Your task to perform on an android device: turn off location history Image 0: 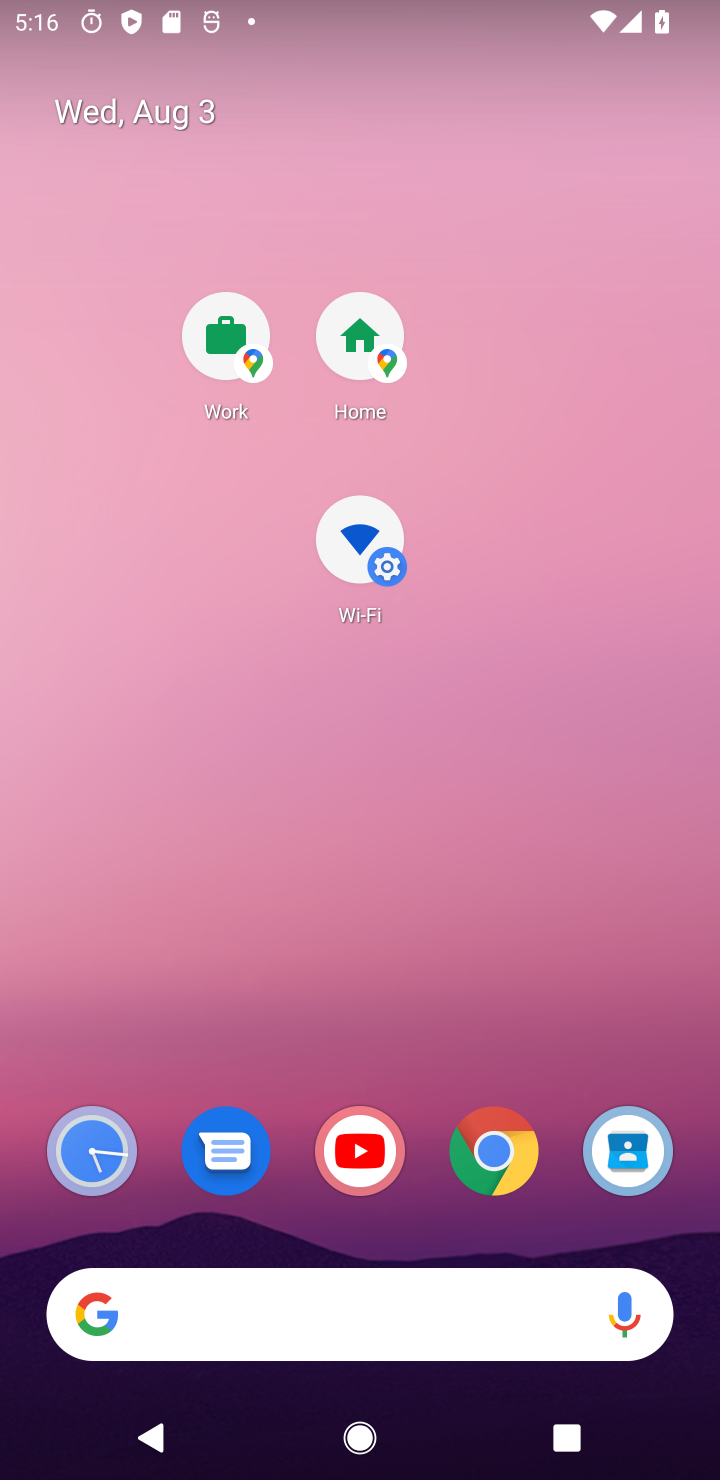
Step 0: drag from (425, 1403) to (264, 795)
Your task to perform on an android device: turn off location history Image 1: 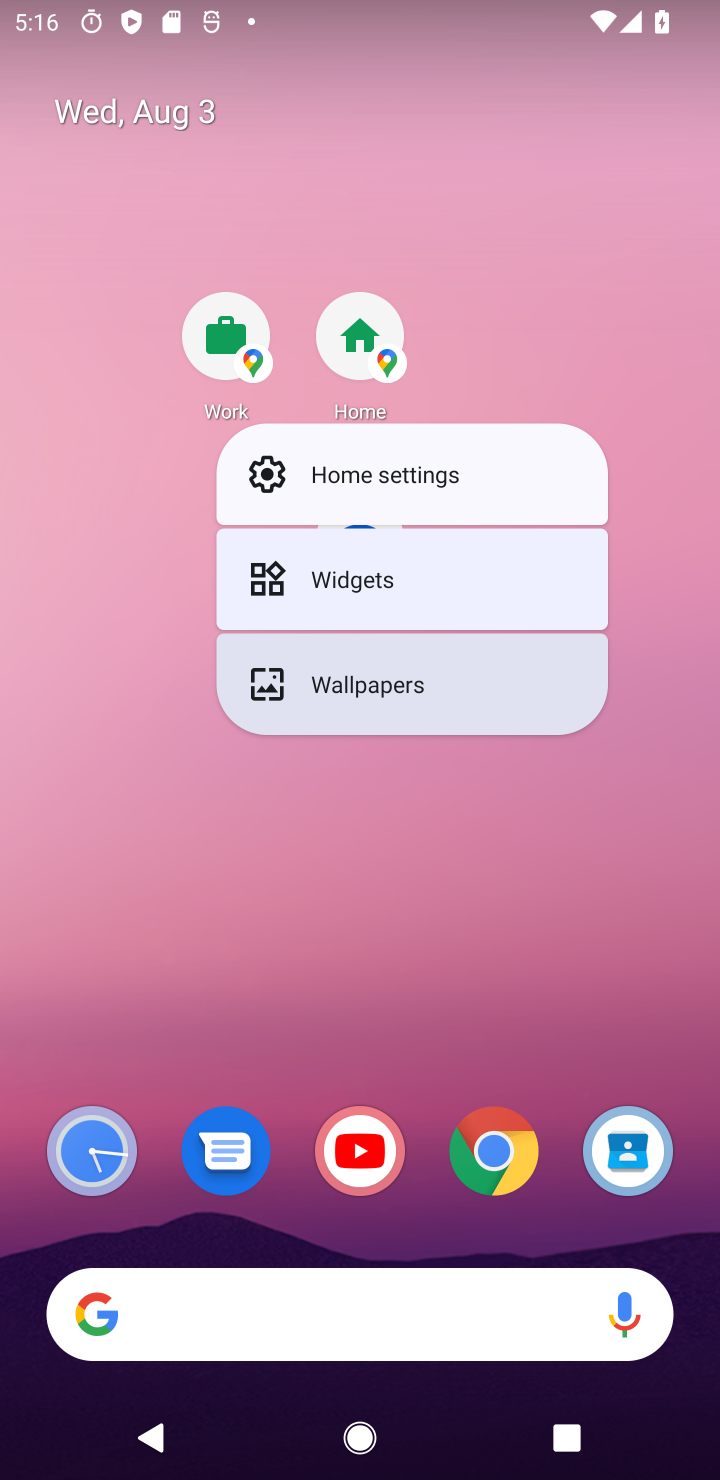
Step 1: click (173, 699)
Your task to perform on an android device: turn off location history Image 2: 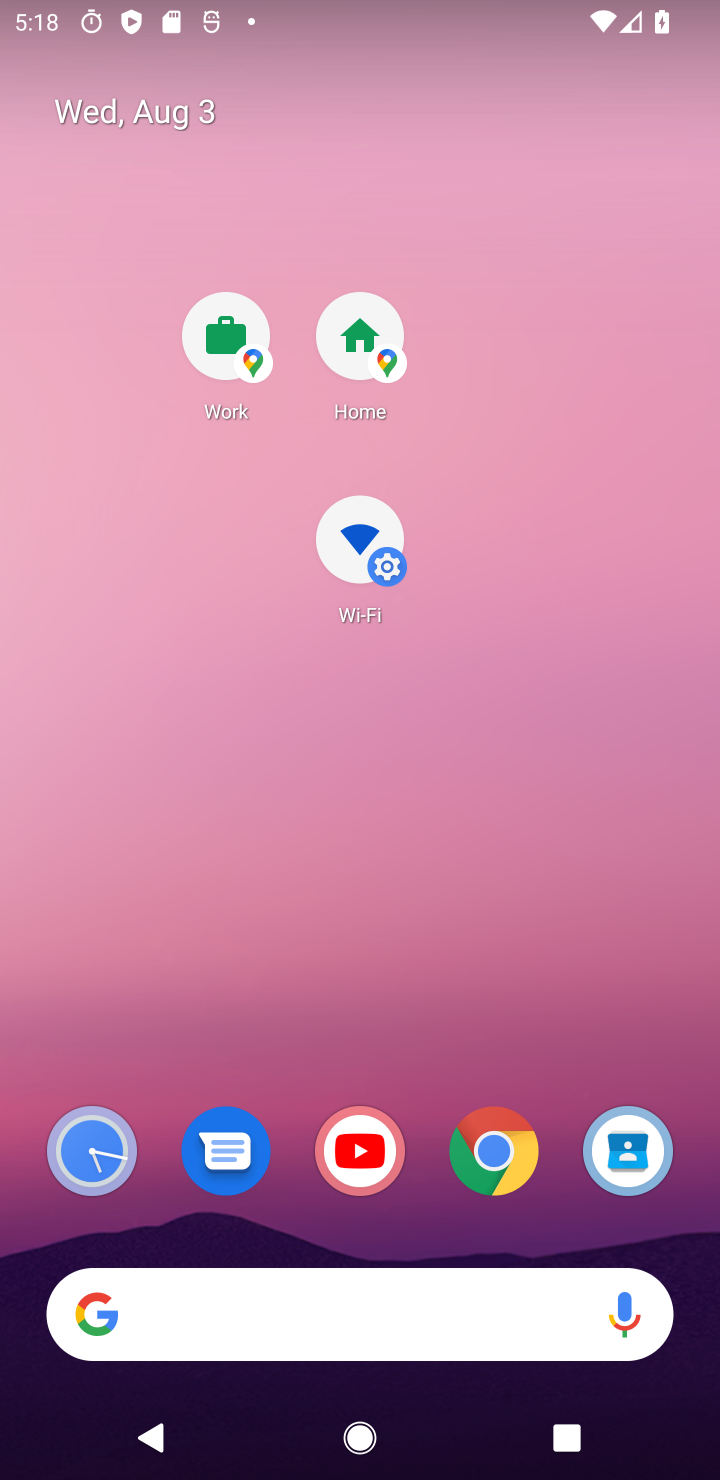
Step 2: drag from (418, 1336) to (205, 432)
Your task to perform on an android device: turn off location history Image 3: 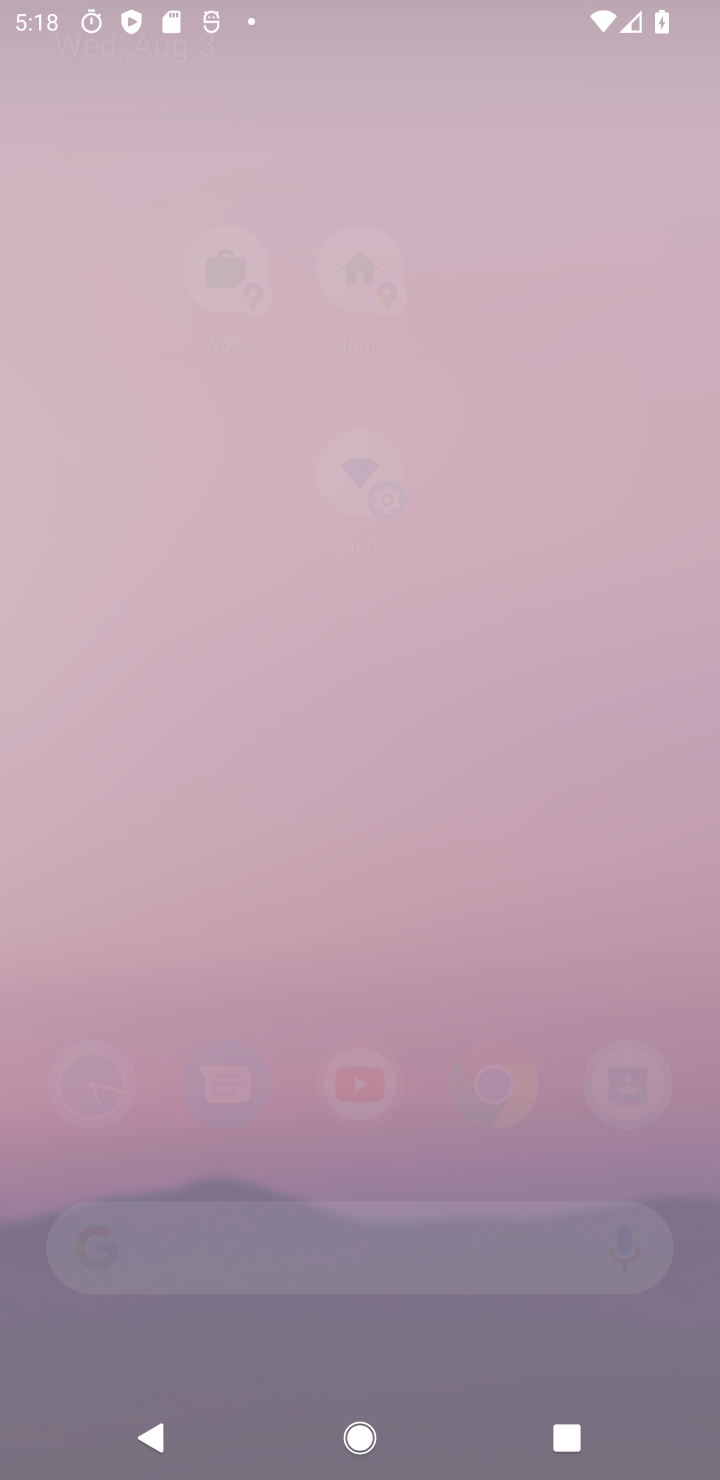
Step 3: drag from (470, 1019) to (387, 609)
Your task to perform on an android device: turn off location history Image 4: 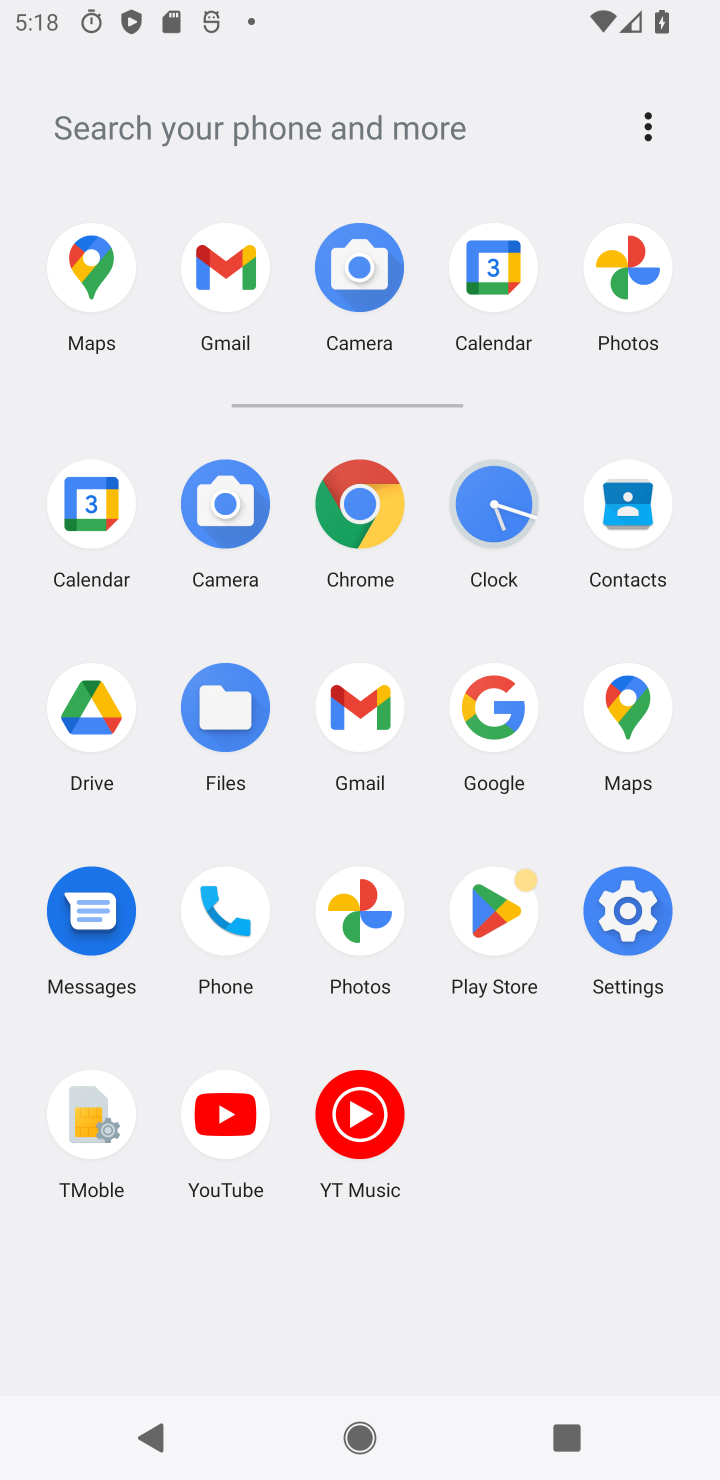
Step 4: drag from (483, 966) to (407, 349)
Your task to perform on an android device: turn off location history Image 5: 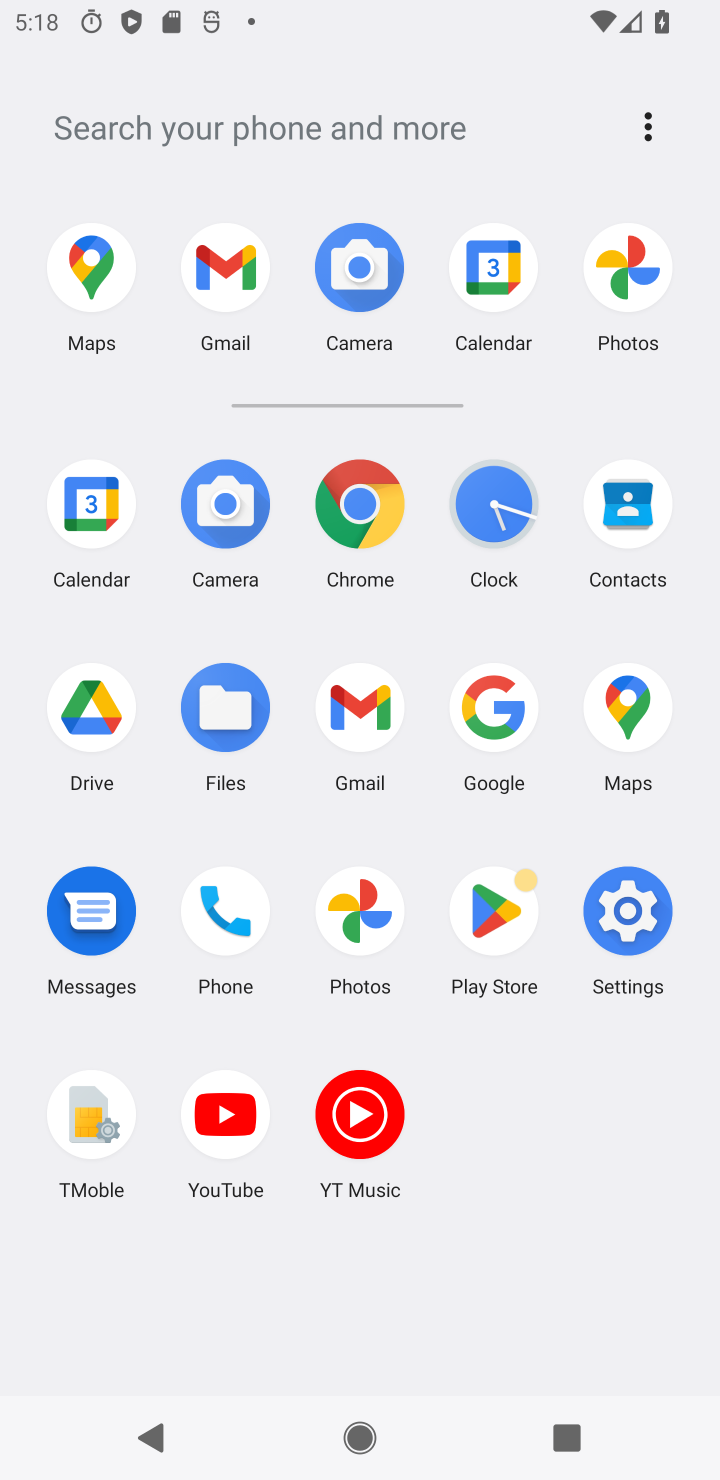
Step 5: click (624, 898)
Your task to perform on an android device: turn off location history Image 6: 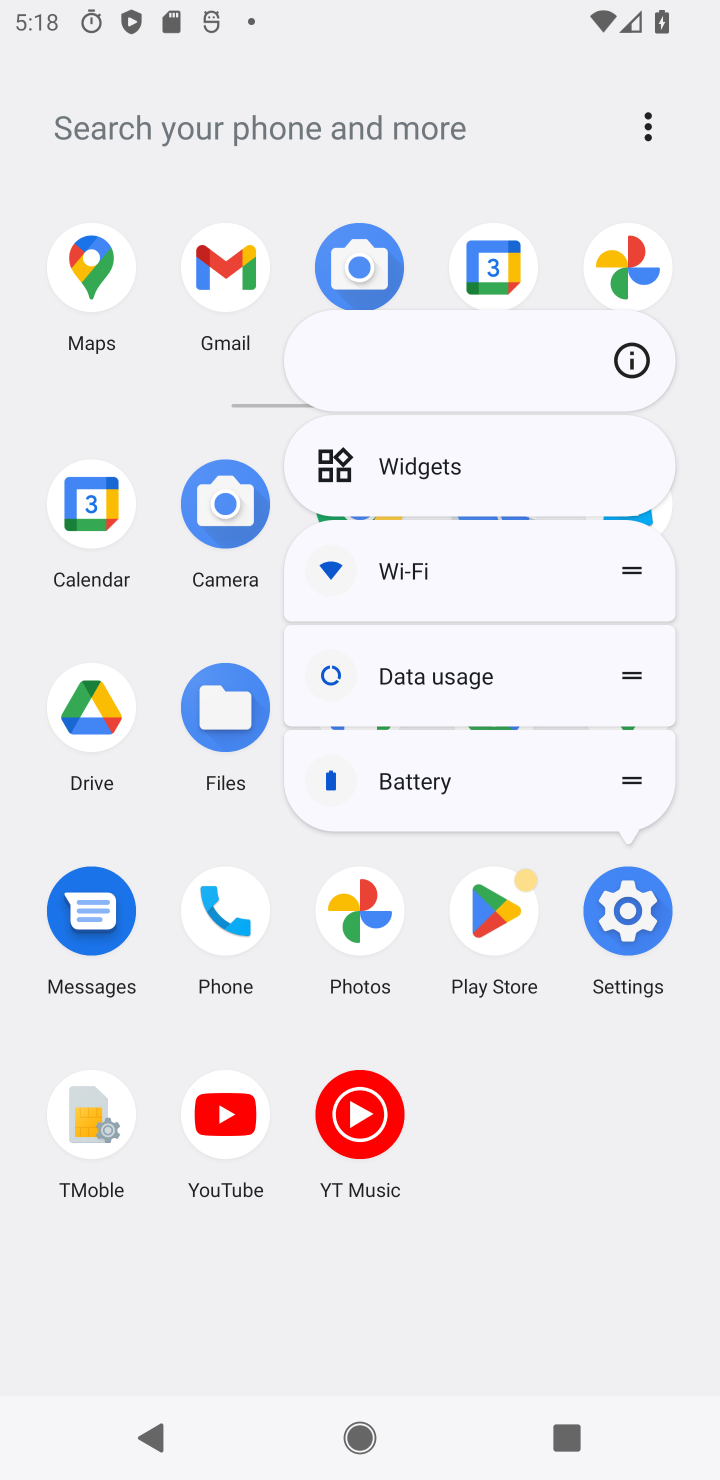
Step 6: click (624, 899)
Your task to perform on an android device: turn off location history Image 7: 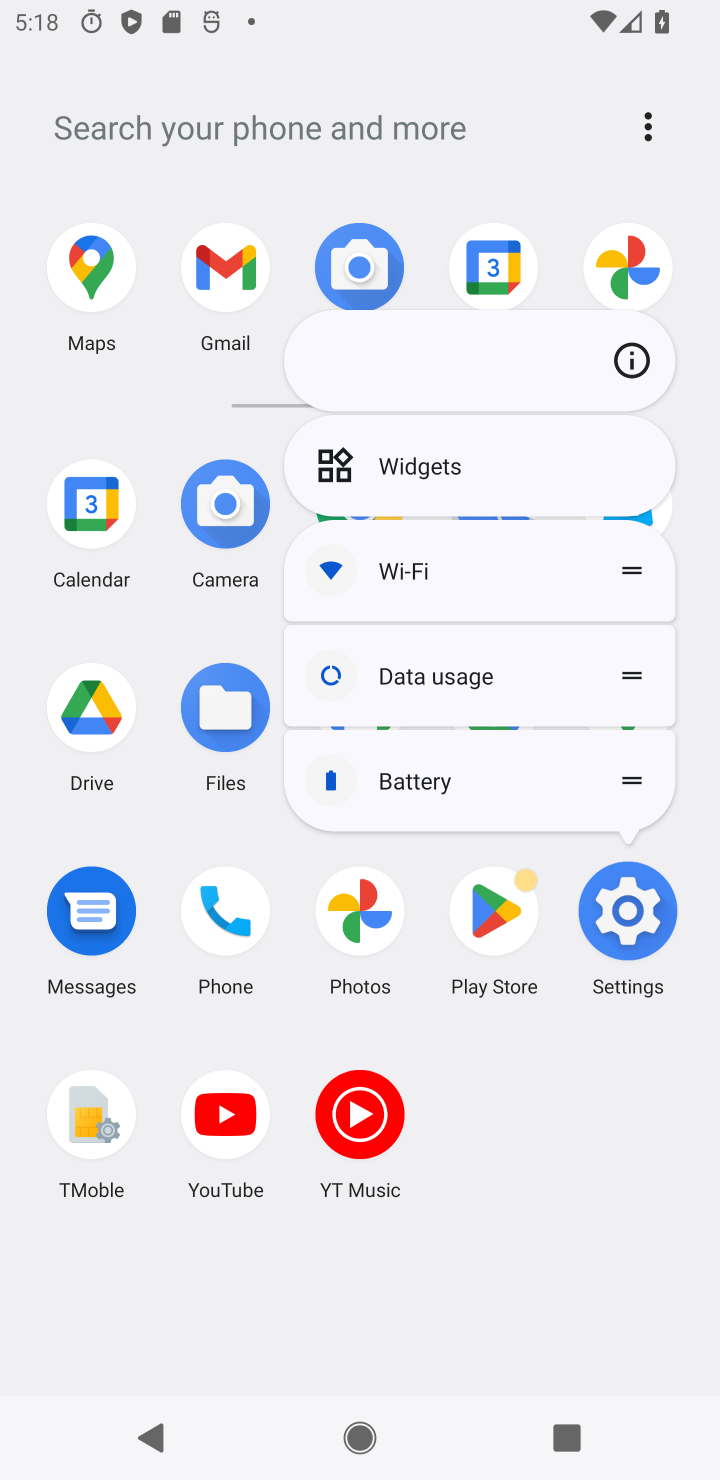
Step 7: click (624, 899)
Your task to perform on an android device: turn off location history Image 8: 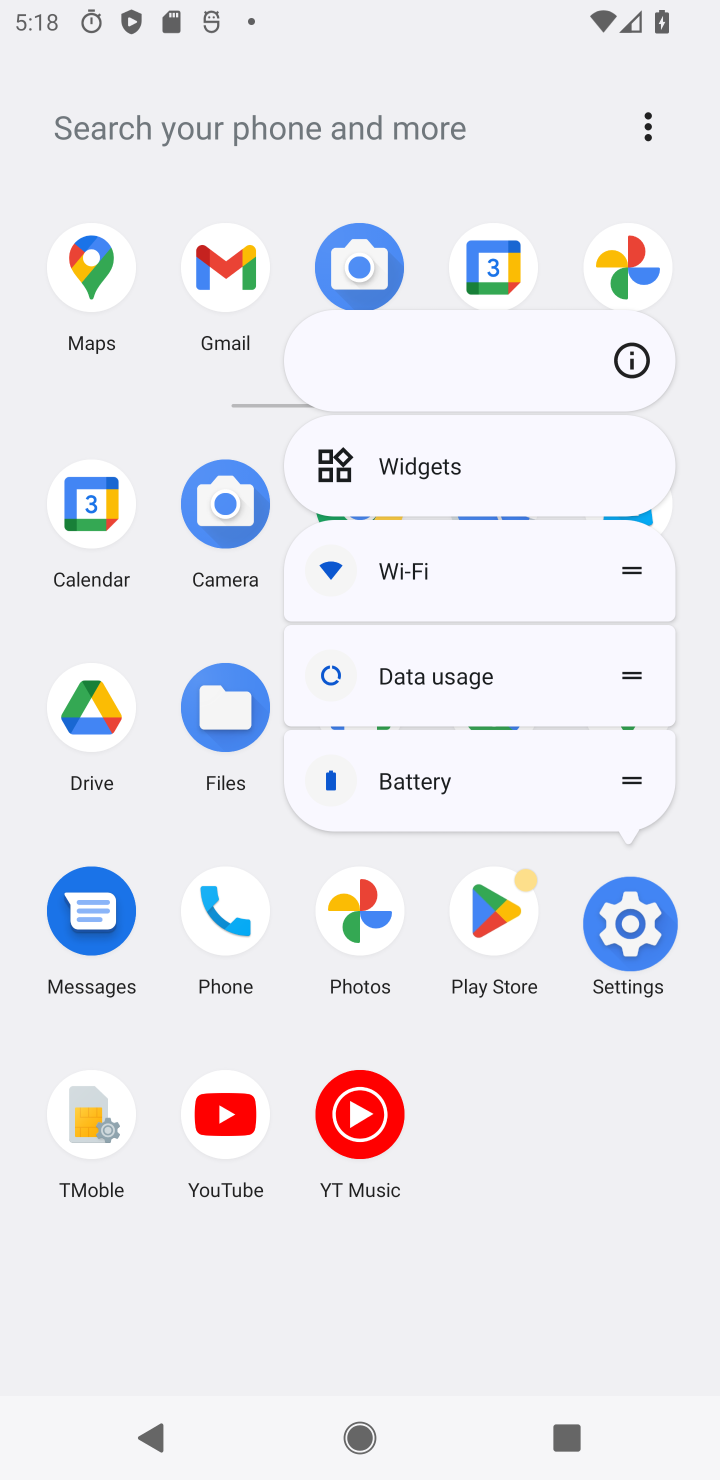
Step 8: click (643, 944)
Your task to perform on an android device: turn off location history Image 9: 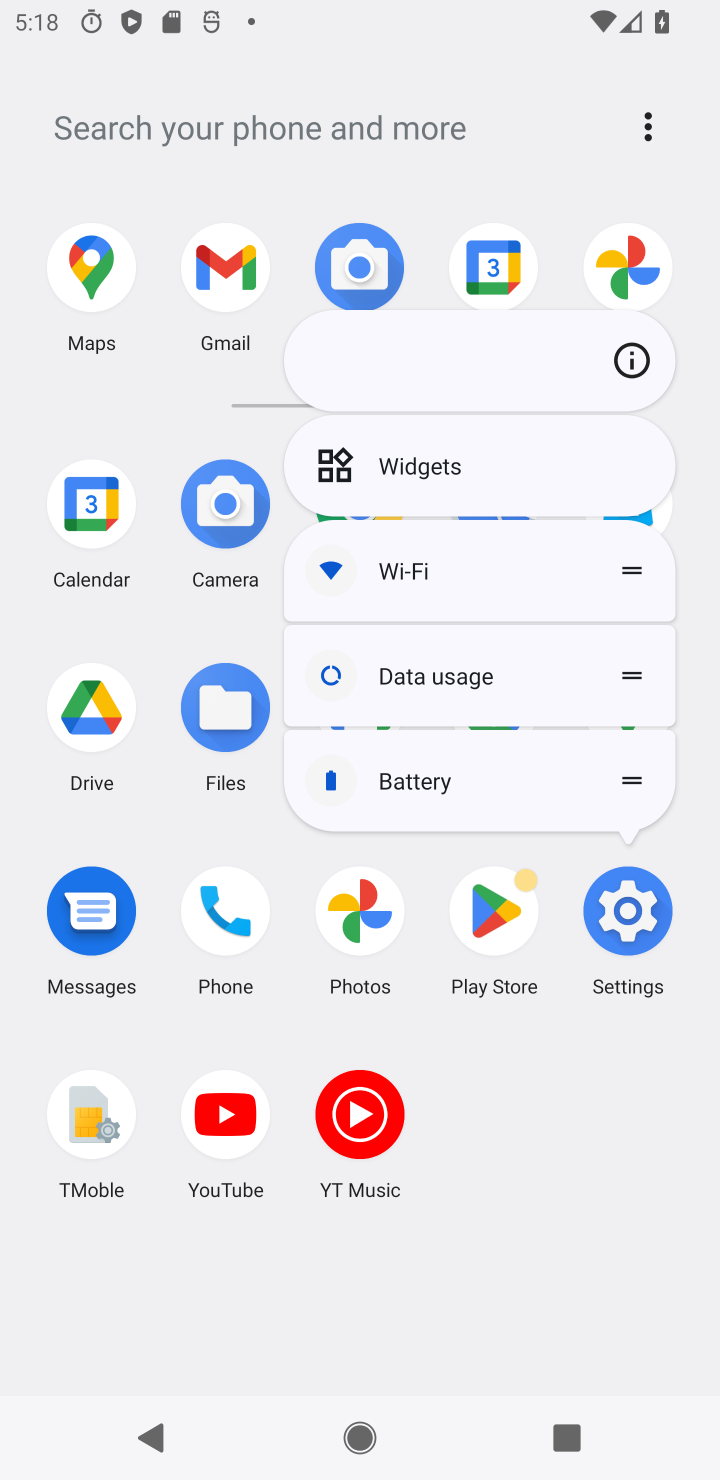
Step 9: click (643, 944)
Your task to perform on an android device: turn off location history Image 10: 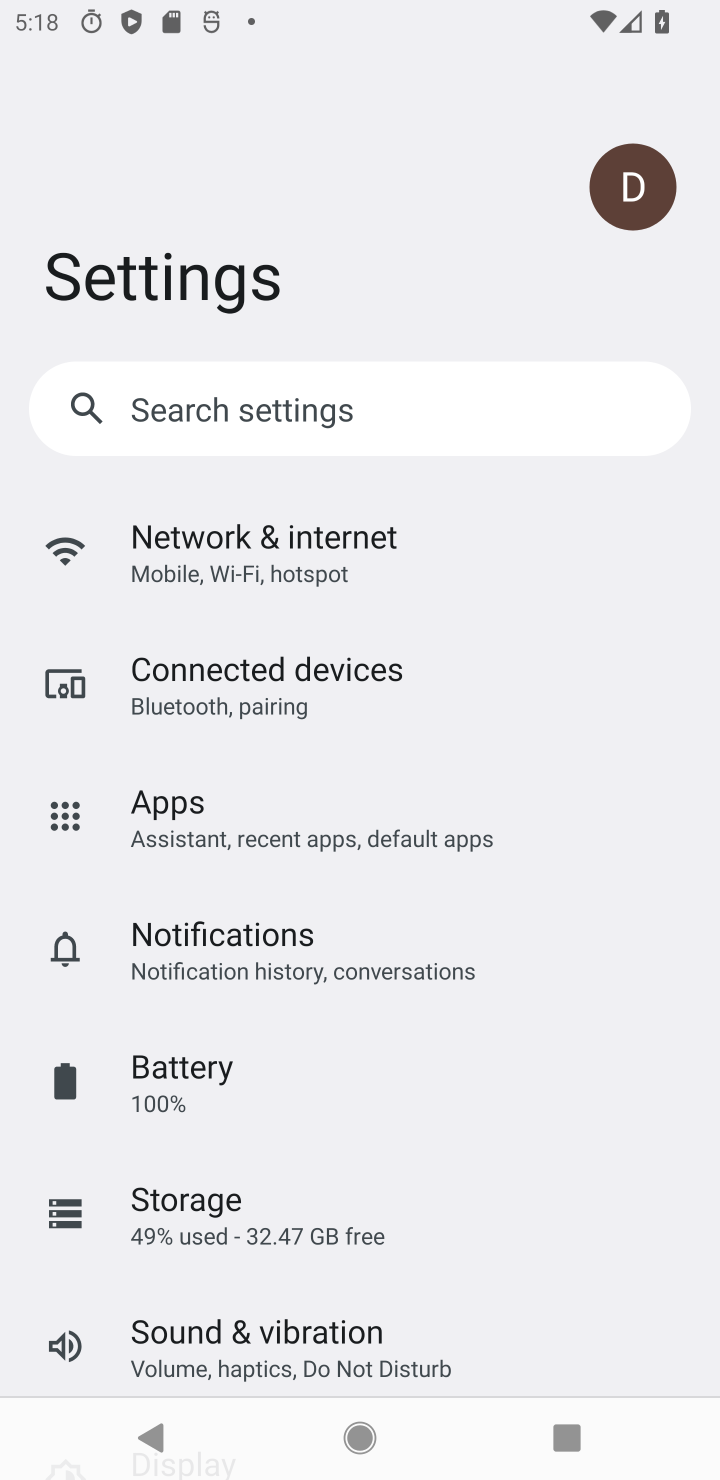
Step 10: drag from (334, 1259) to (393, 370)
Your task to perform on an android device: turn off location history Image 11: 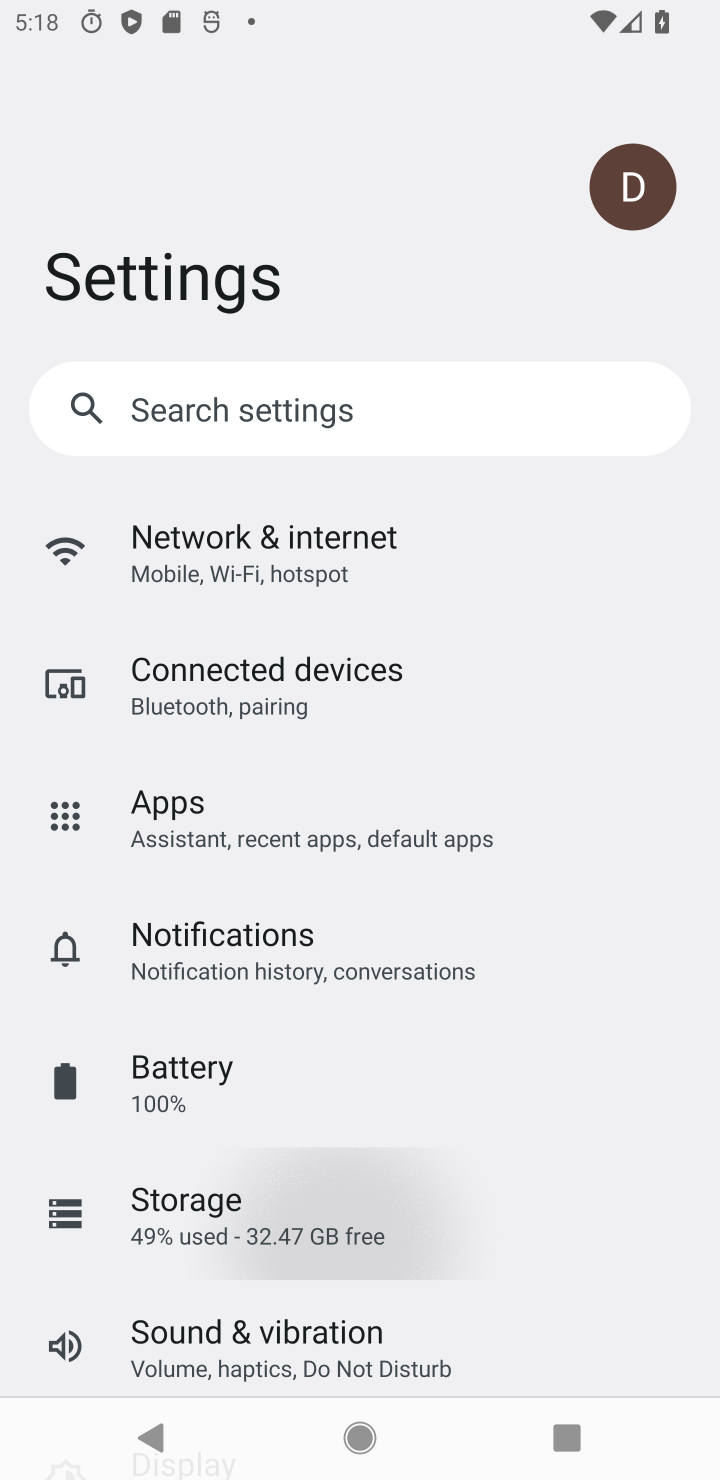
Step 11: click (349, 835)
Your task to perform on an android device: turn off location history Image 12: 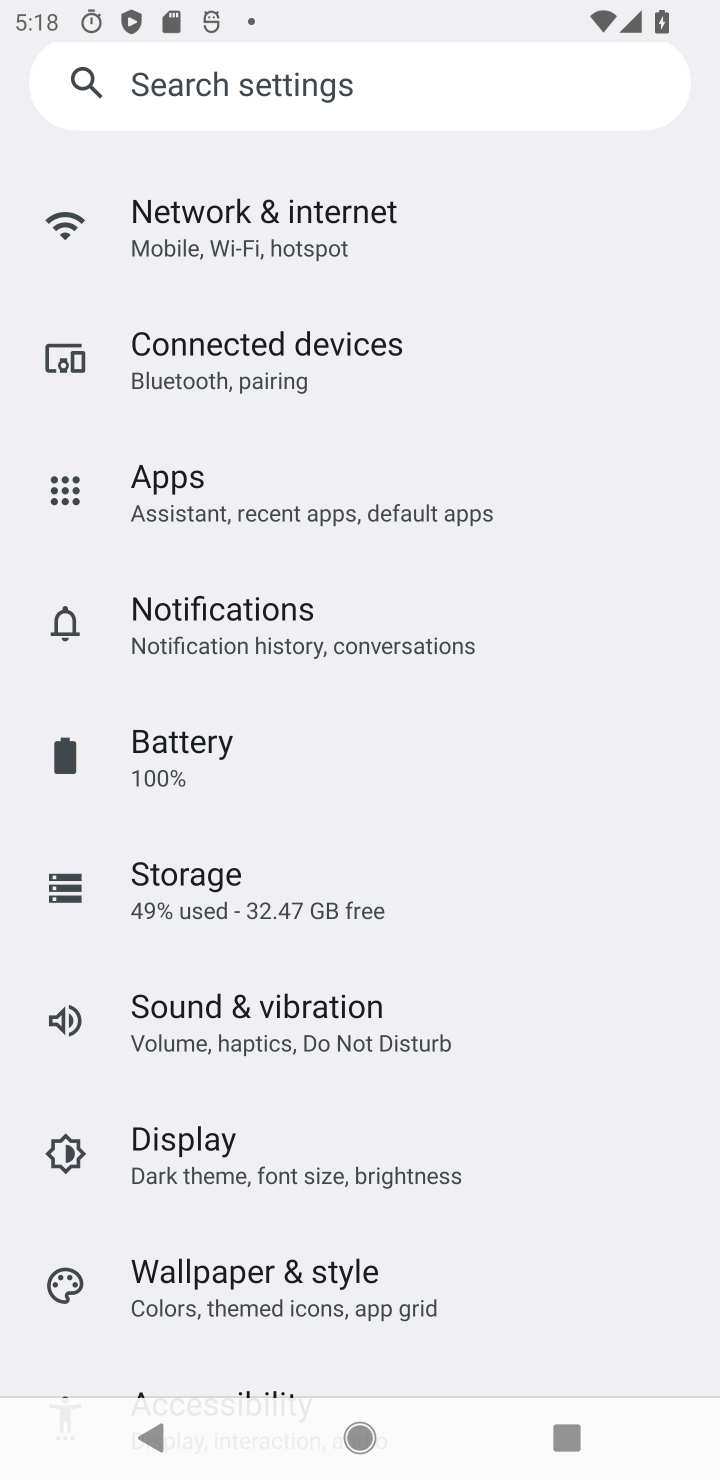
Step 12: drag from (285, 1152) to (143, 134)
Your task to perform on an android device: turn off location history Image 13: 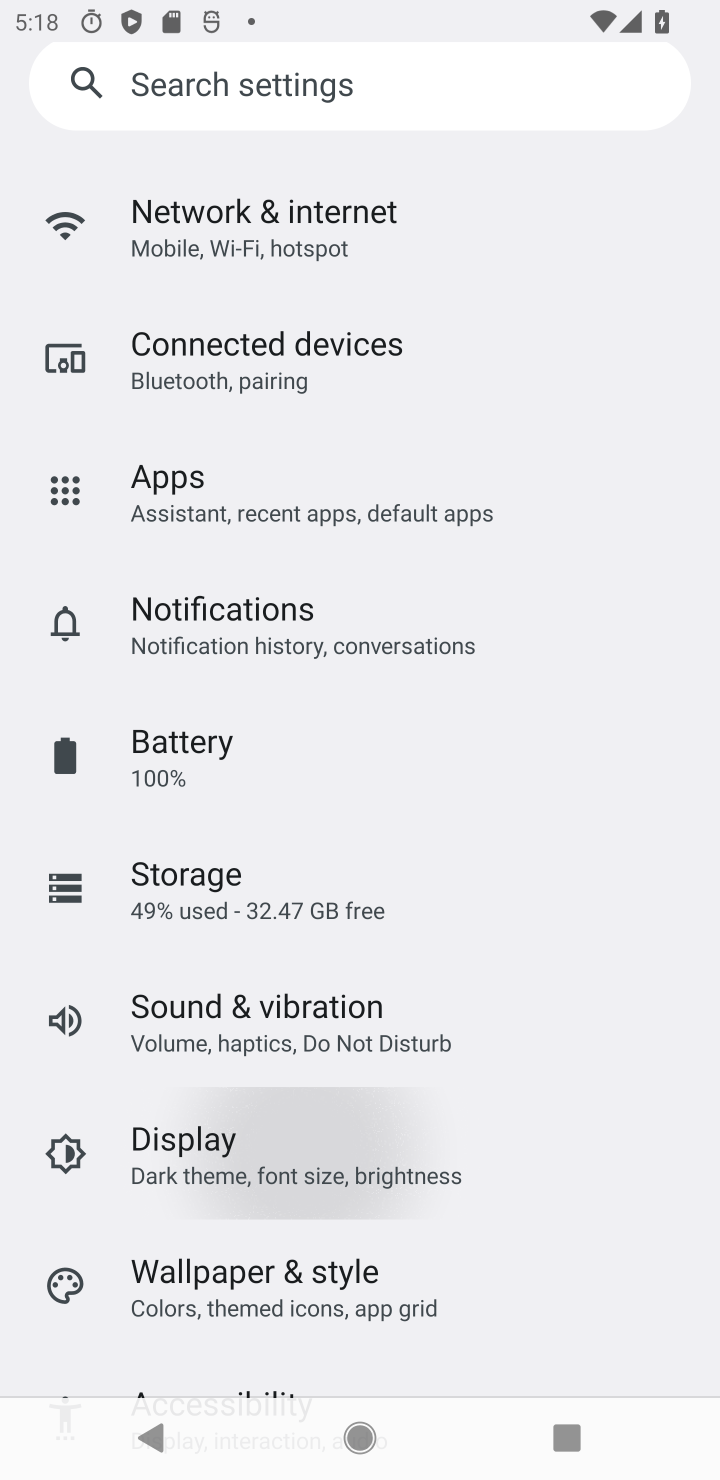
Step 13: drag from (306, 773) to (287, 574)
Your task to perform on an android device: turn off location history Image 14: 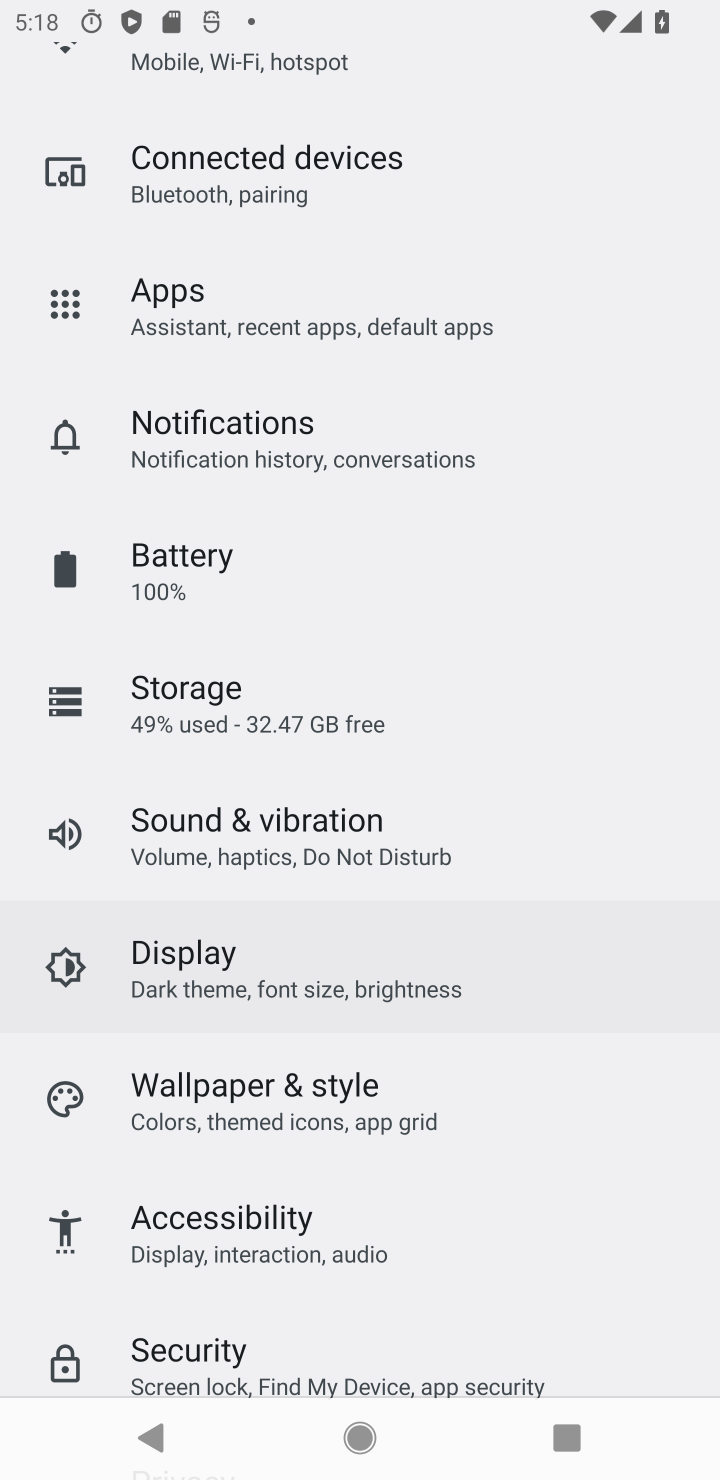
Step 14: drag from (355, 1079) to (337, 839)
Your task to perform on an android device: turn off location history Image 15: 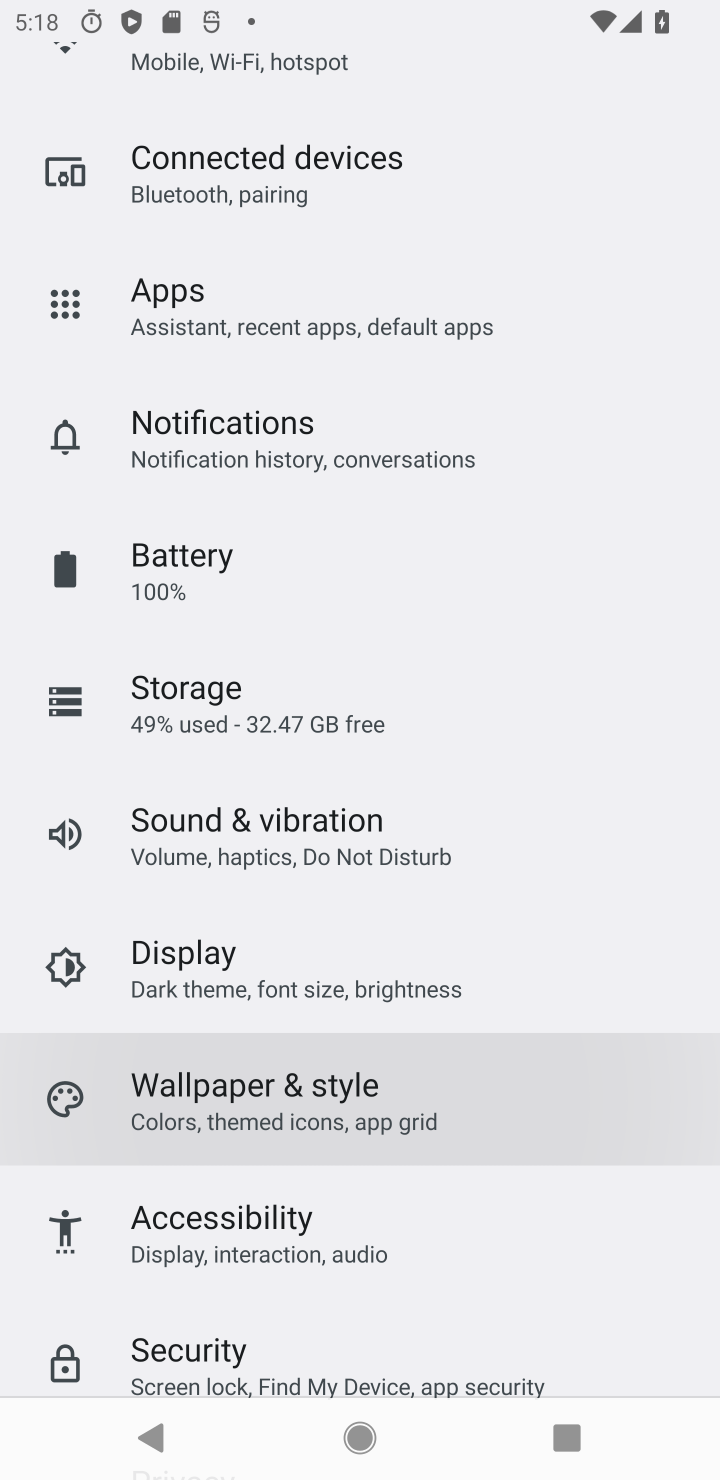
Step 15: drag from (364, 1078) to (253, 520)
Your task to perform on an android device: turn off location history Image 16: 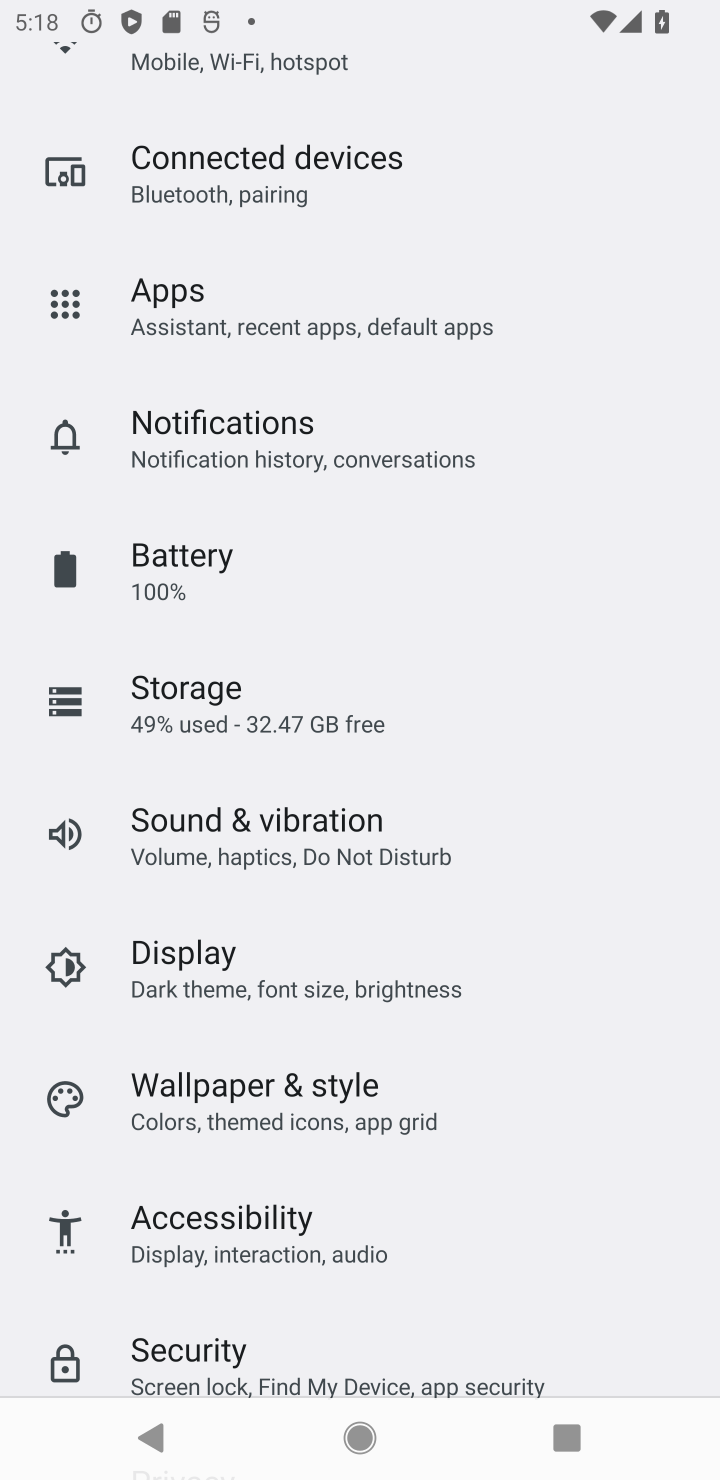
Step 16: drag from (329, 1125) to (235, 405)
Your task to perform on an android device: turn off location history Image 17: 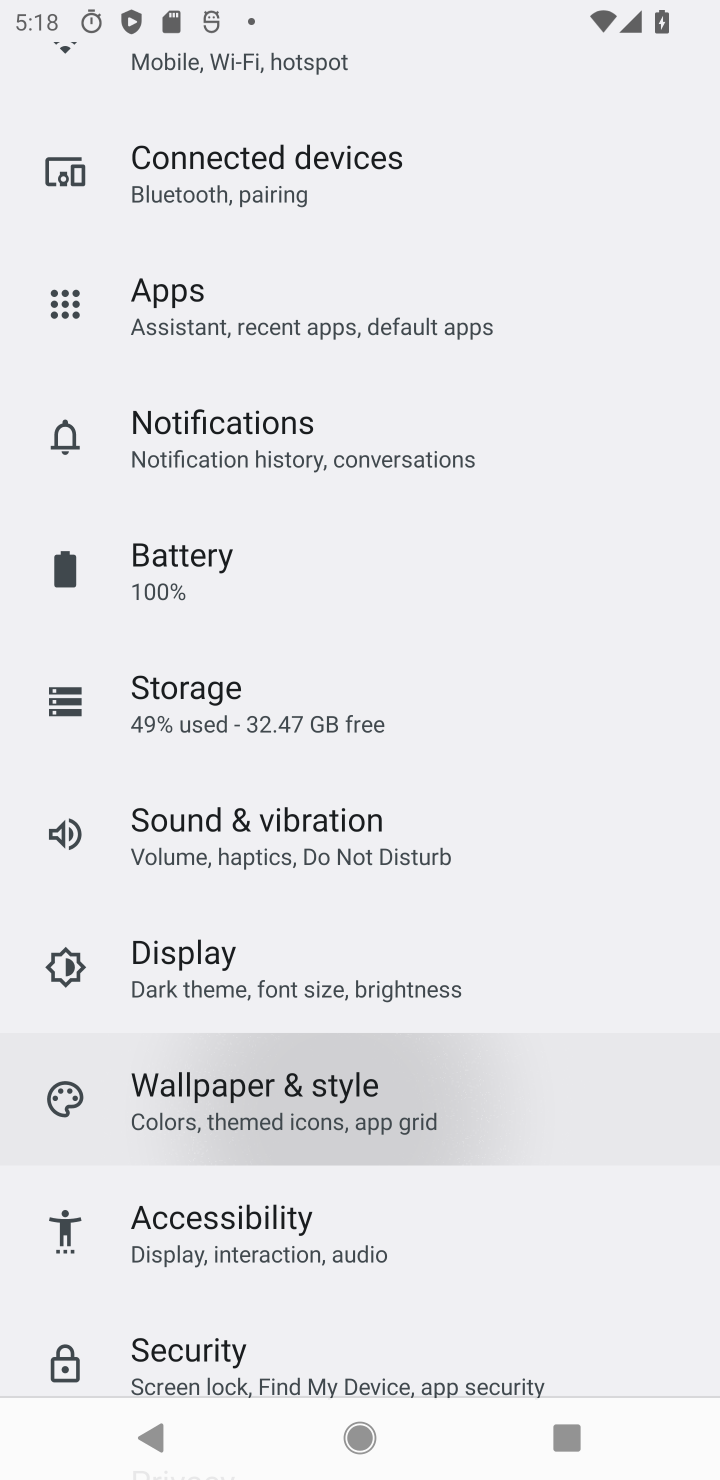
Step 17: drag from (378, 969) to (294, 638)
Your task to perform on an android device: turn off location history Image 18: 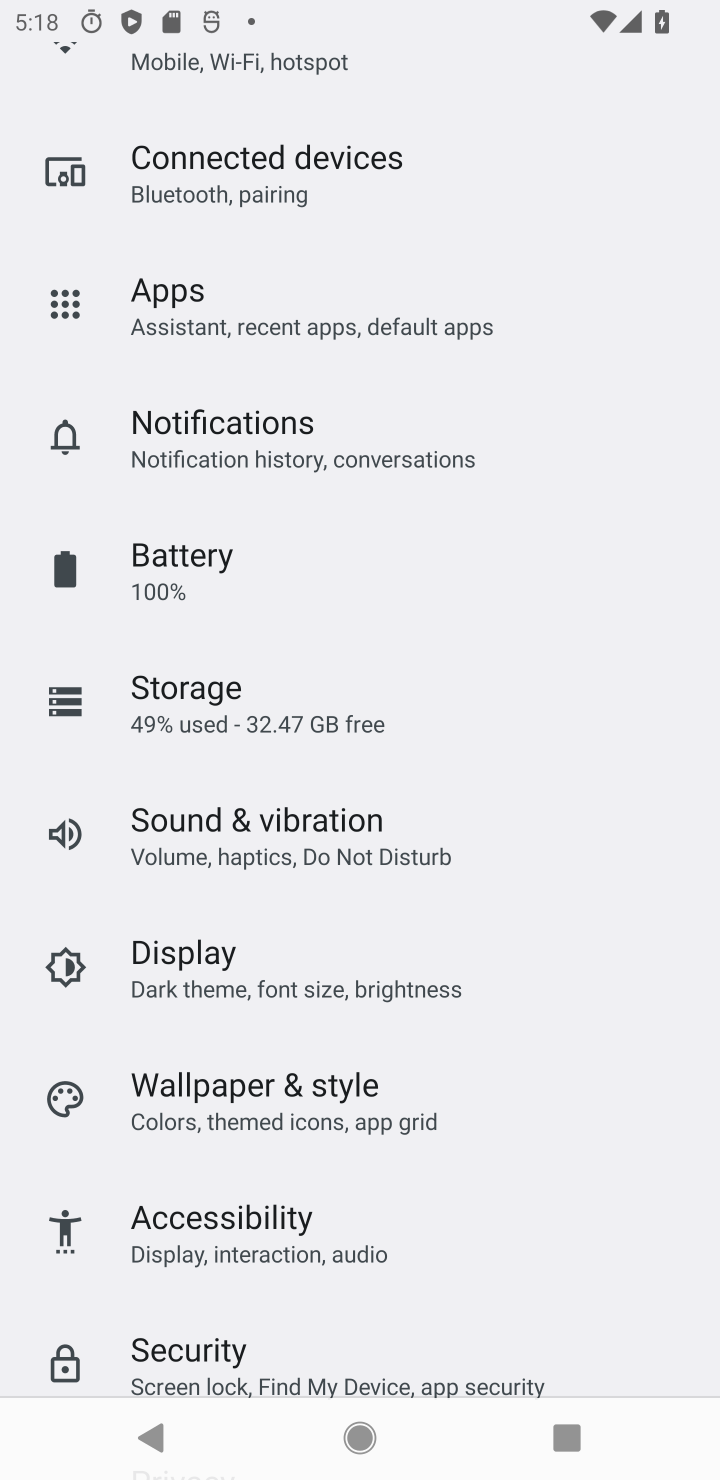
Step 18: drag from (300, 1192) to (321, 585)
Your task to perform on an android device: turn off location history Image 19: 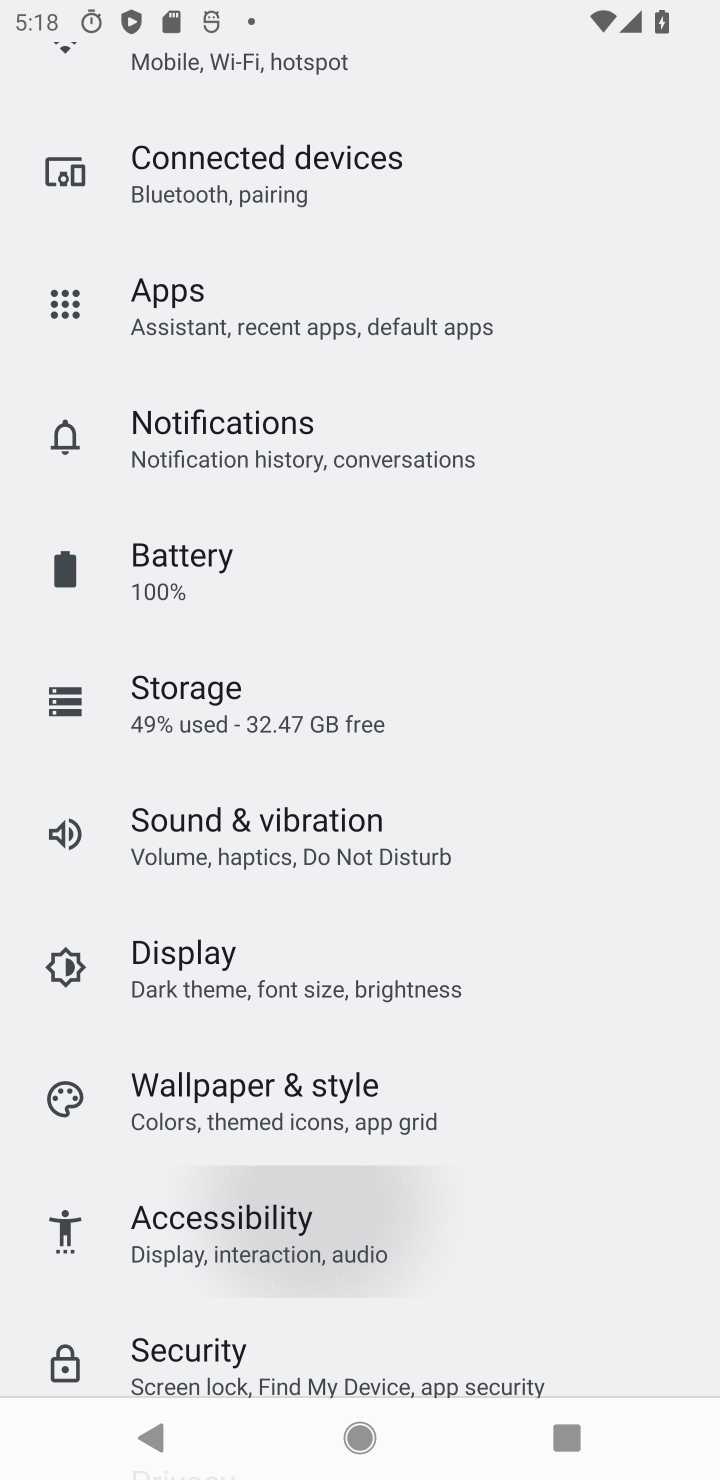
Step 19: drag from (294, 1049) to (306, 749)
Your task to perform on an android device: turn off location history Image 20: 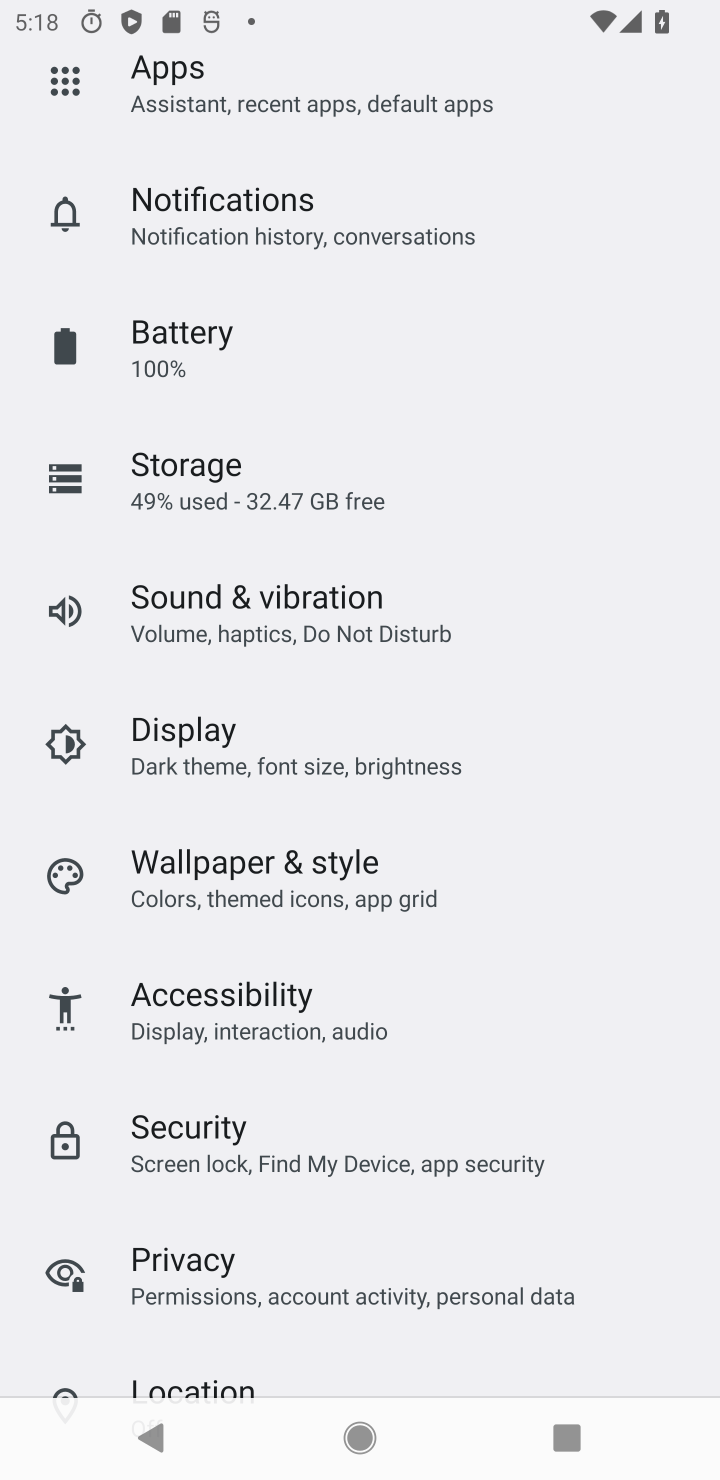
Step 20: drag from (376, 1030) to (345, 695)
Your task to perform on an android device: turn off location history Image 21: 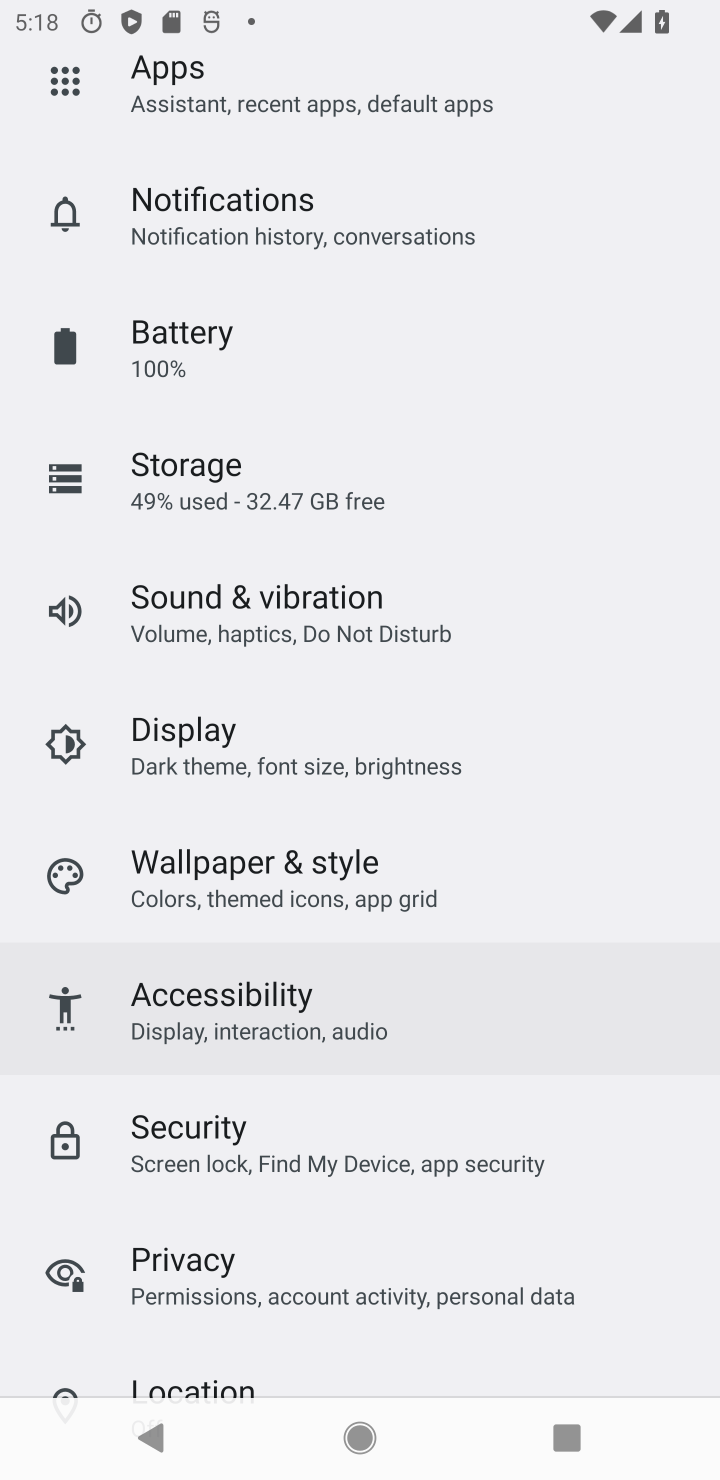
Step 21: drag from (443, 913) to (358, 417)
Your task to perform on an android device: turn off location history Image 22: 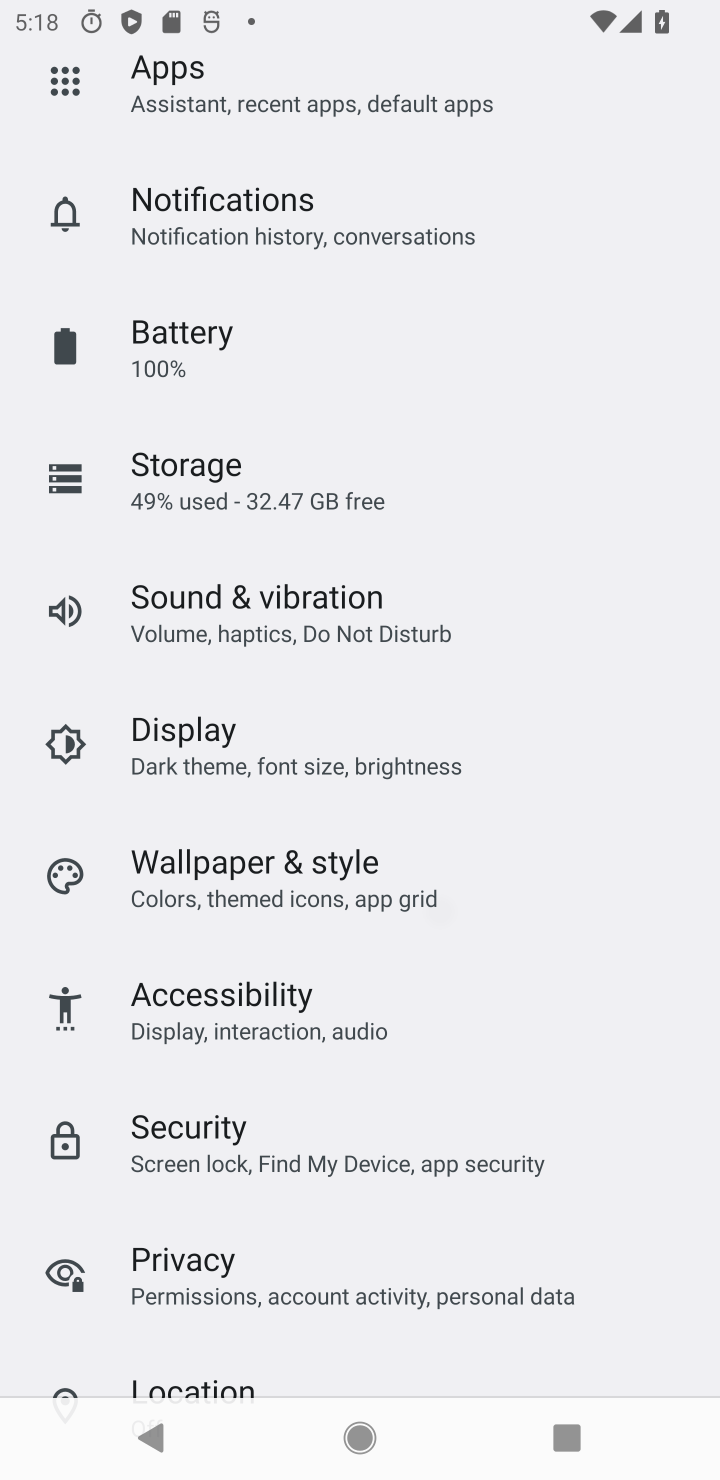
Step 22: drag from (406, 1124) to (358, 472)
Your task to perform on an android device: turn off location history Image 23: 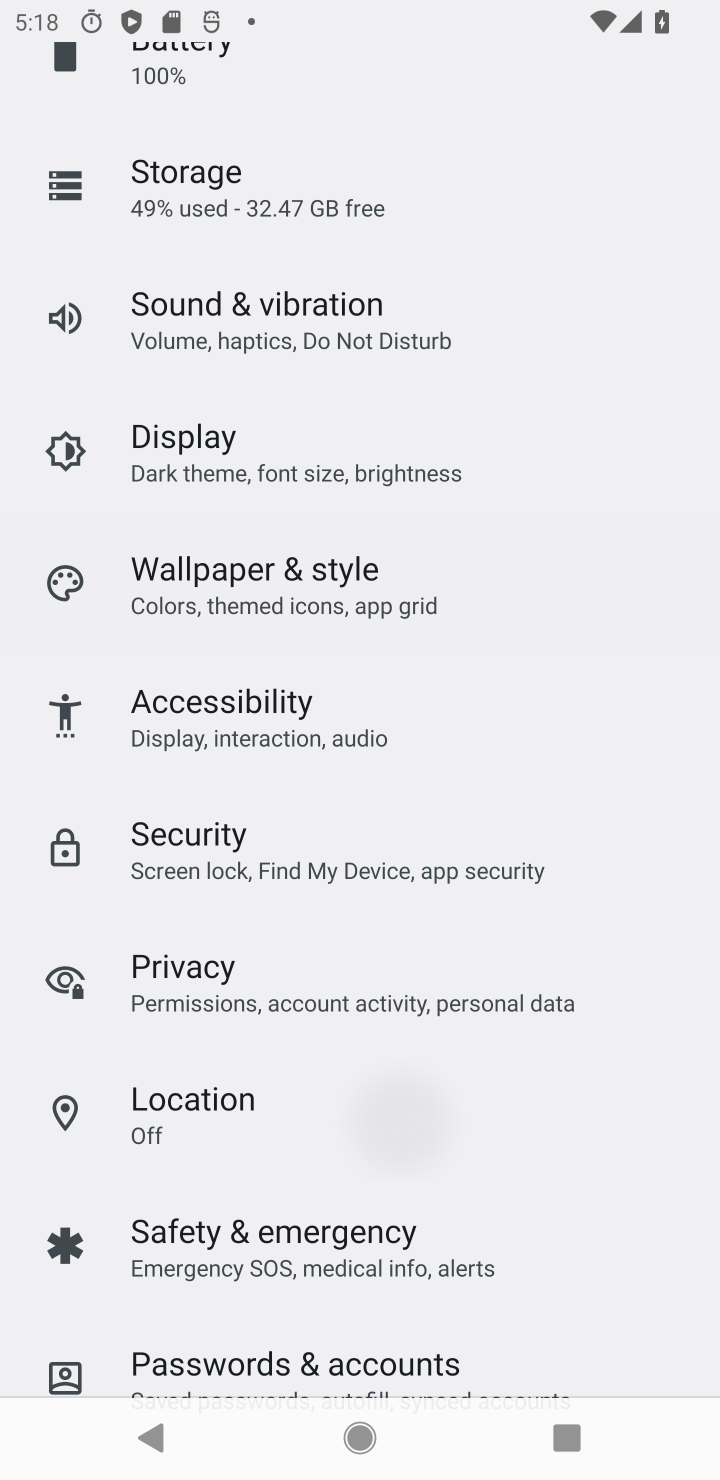
Step 23: drag from (338, 955) to (319, 691)
Your task to perform on an android device: turn off location history Image 24: 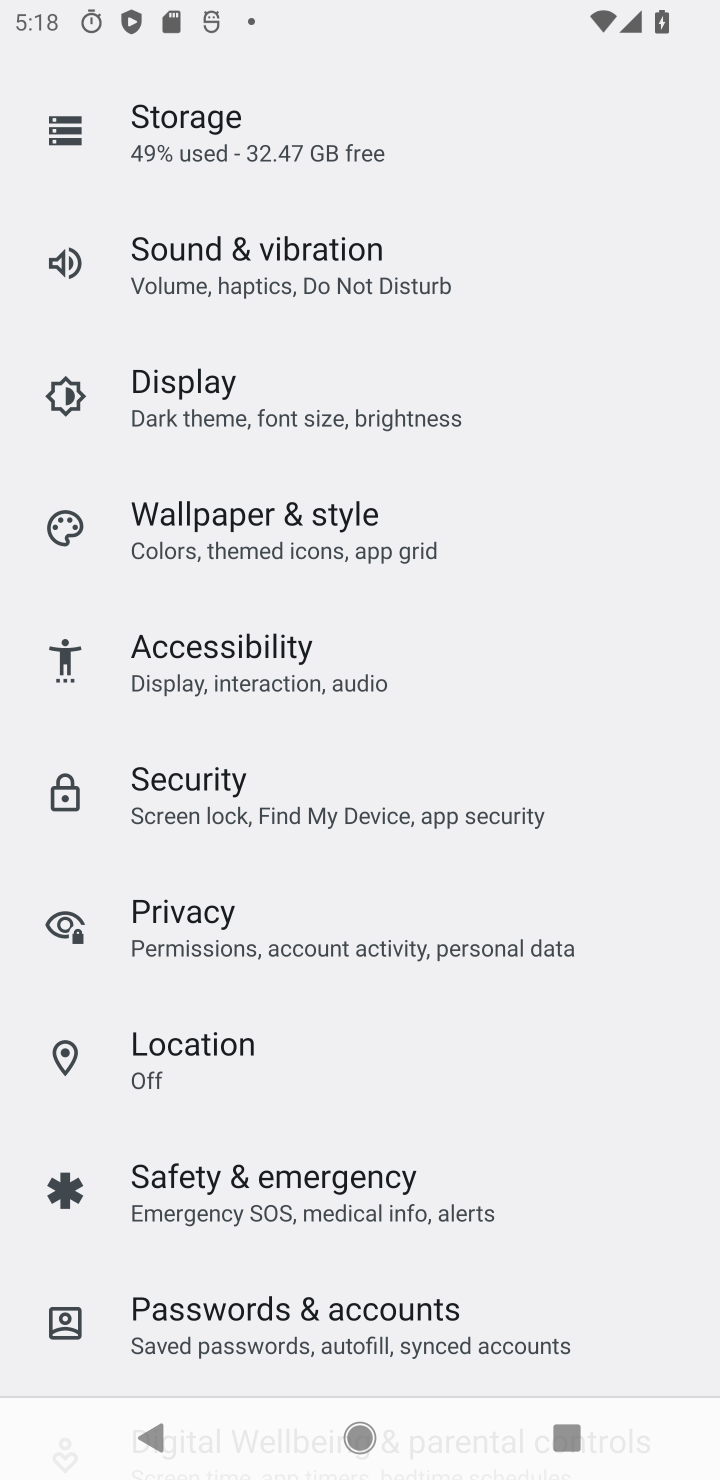
Step 24: click (191, 1053)
Your task to perform on an android device: turn off location history Image 25: 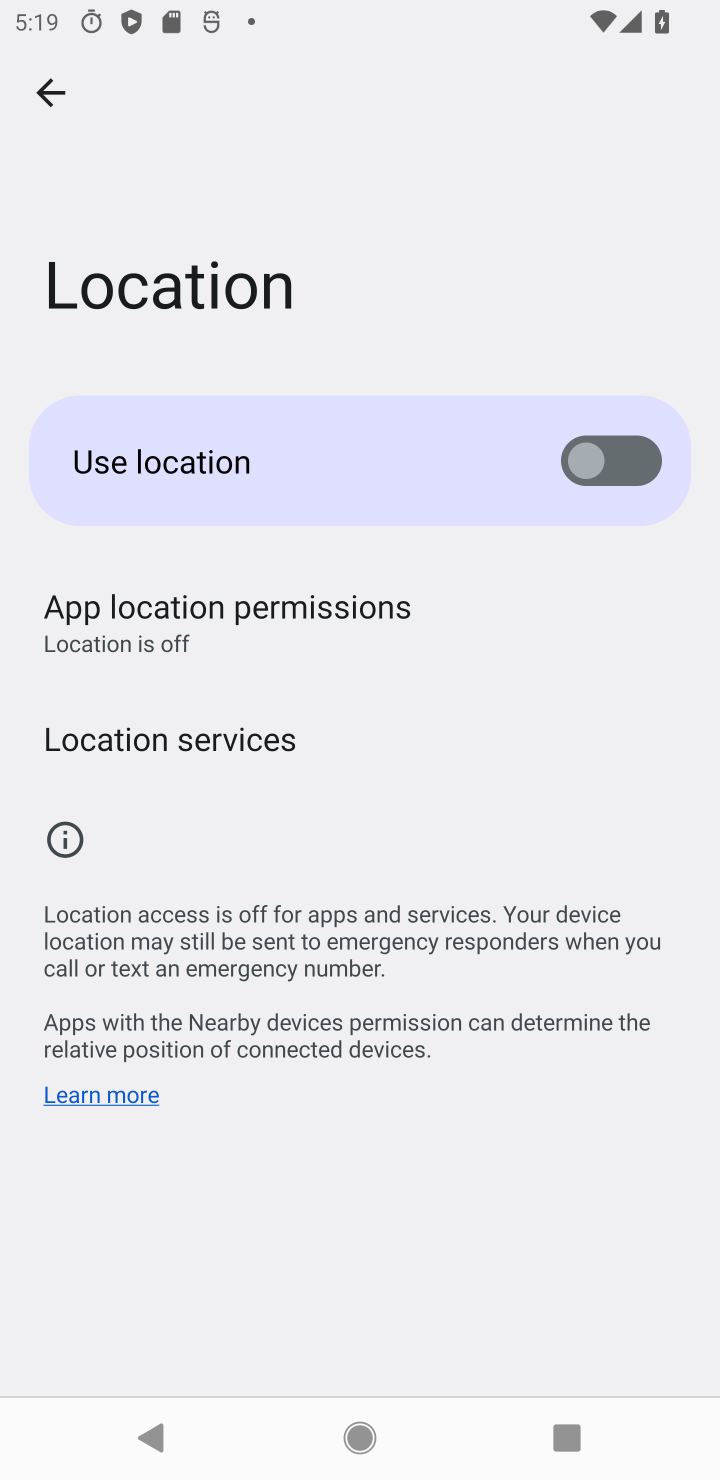
Step 25: task complete